Your task to perform on an android device: Show me some nice wallpapers for my computer Image 0: 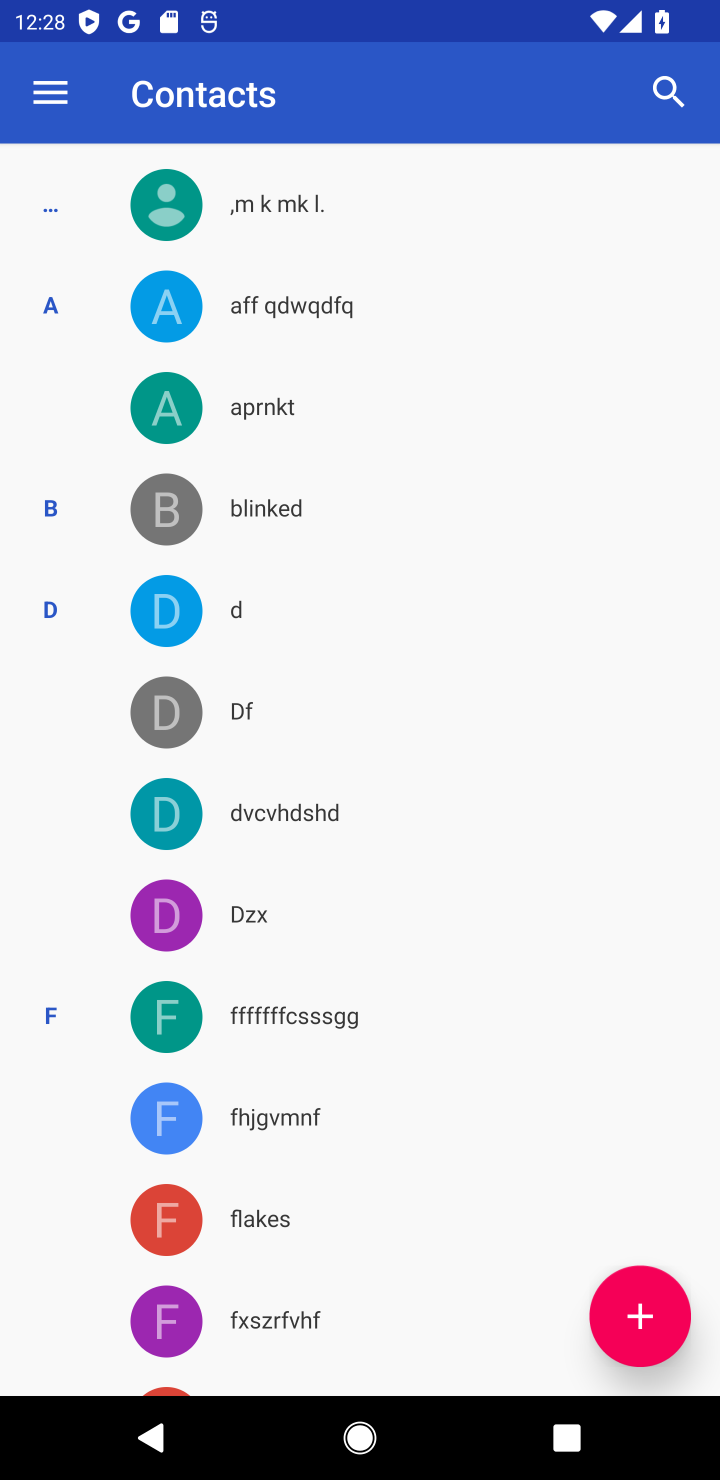
Step 0: press home button
Your task to perform on an android device: Show me some nice wallpapers for my computer Image 1: 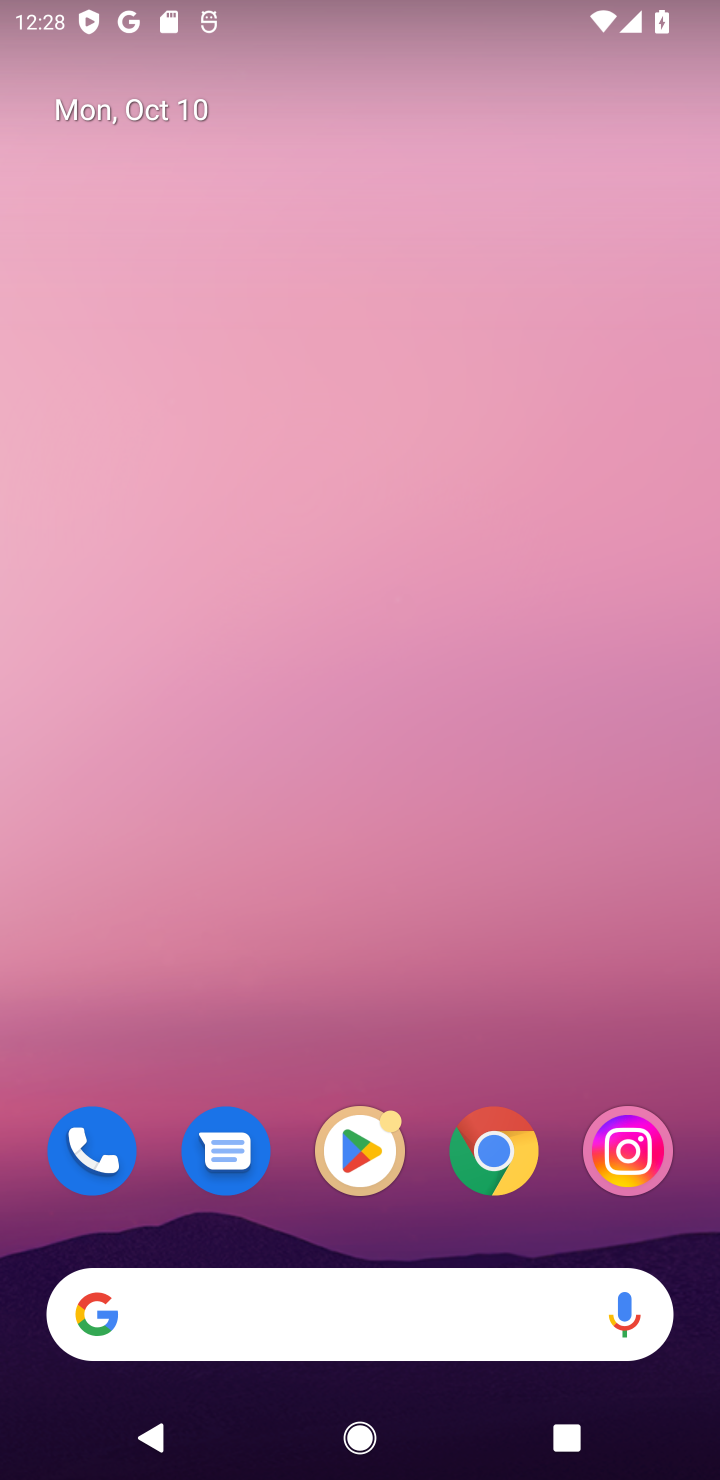
Step 1: drag from (705, 1446) to (611, 1403)
Your task to perform on an android device: Show me some nice wallpapers for my computer Image 2: 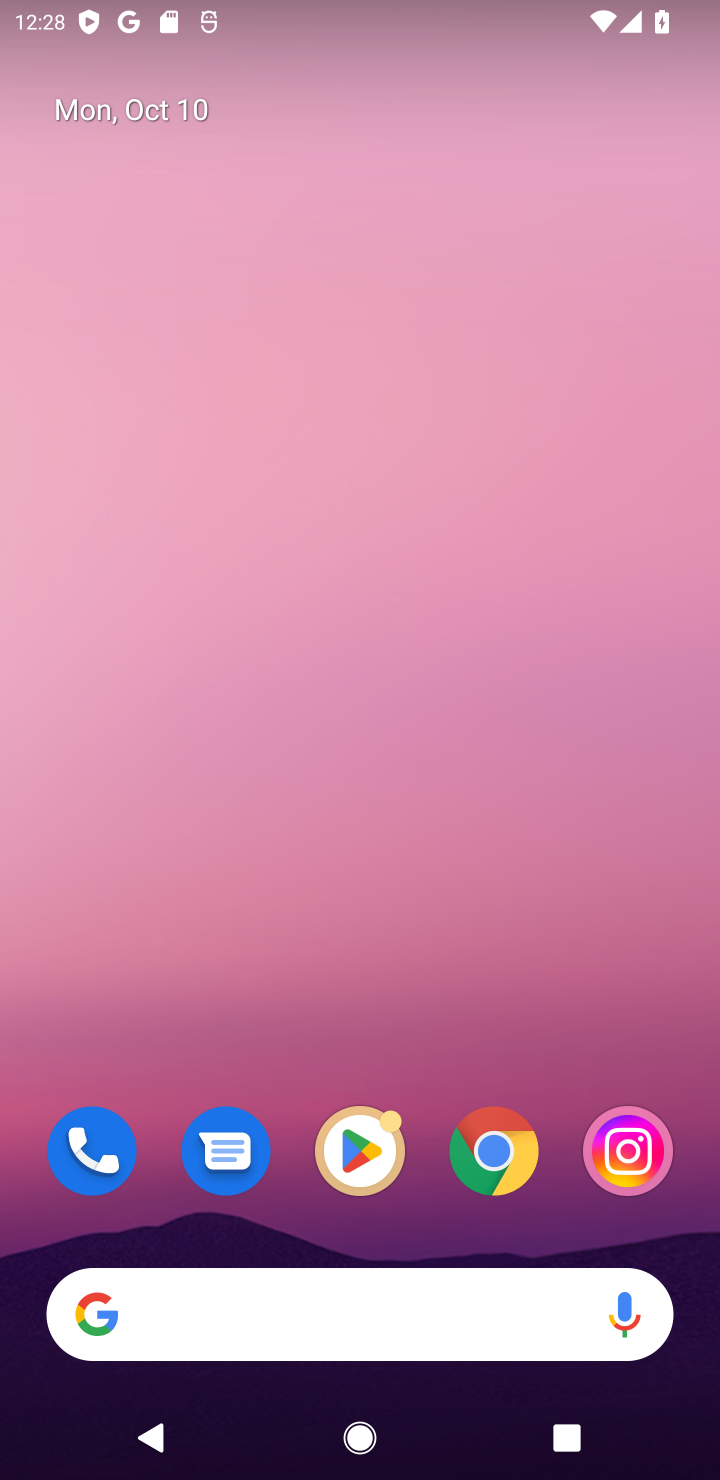
Step 2: click (333, 1323)
Your task to perform on an android device: Show me some nice wallpapers for my computer Image 3: 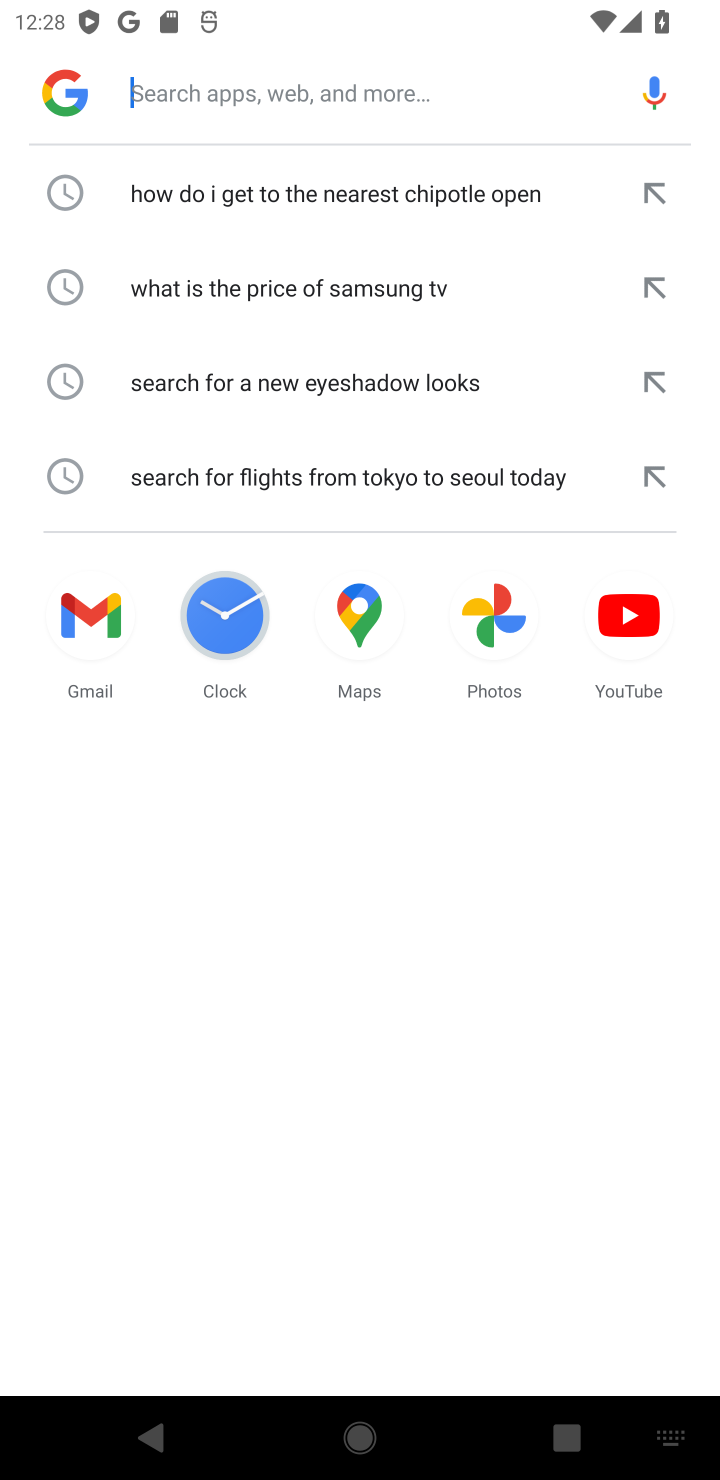
Step 3: type "Show me some nice wallpapers for my computer"
Your task to perform on an android device: Show me some nice wallpapers for my computer Image 4: 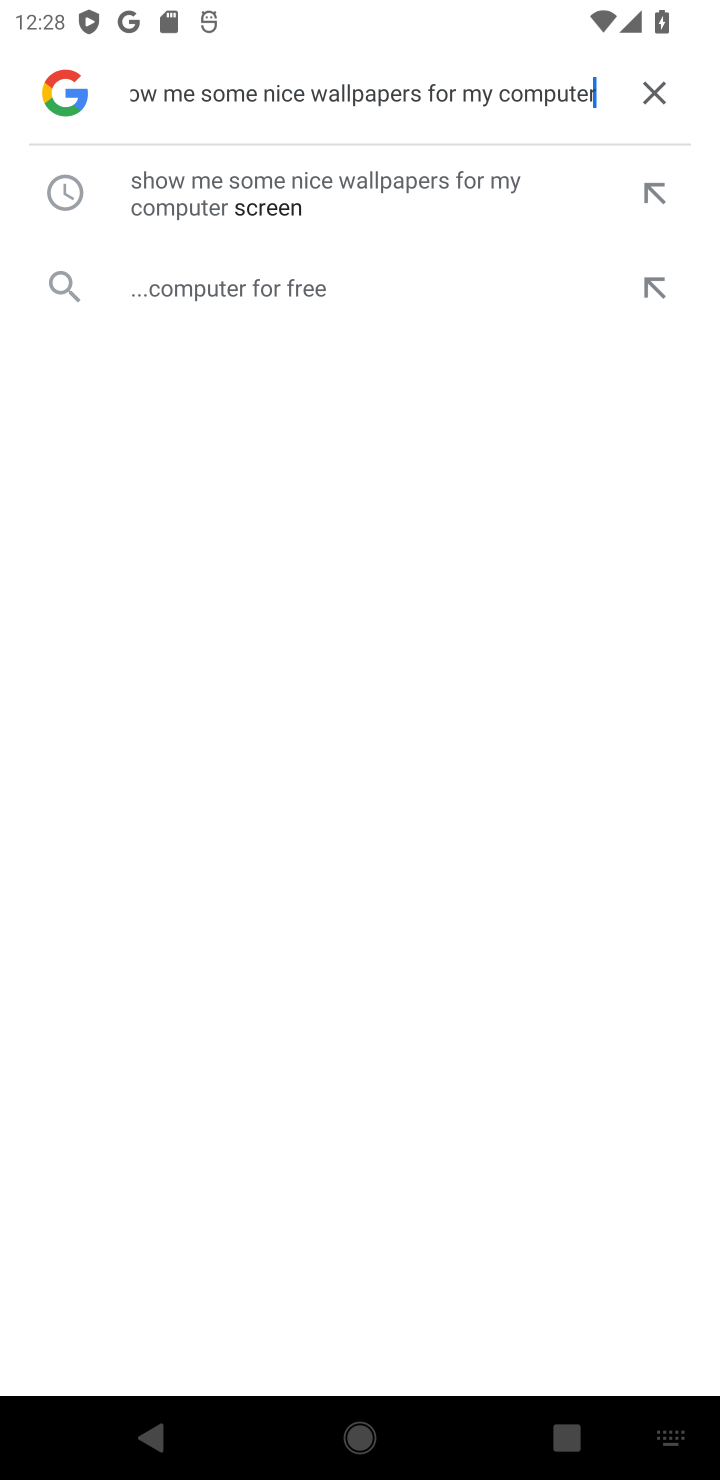
Step 4: click (281, 185)
Your task to perform on an android device: Show me some nice wallpapers for my computer Image 5: 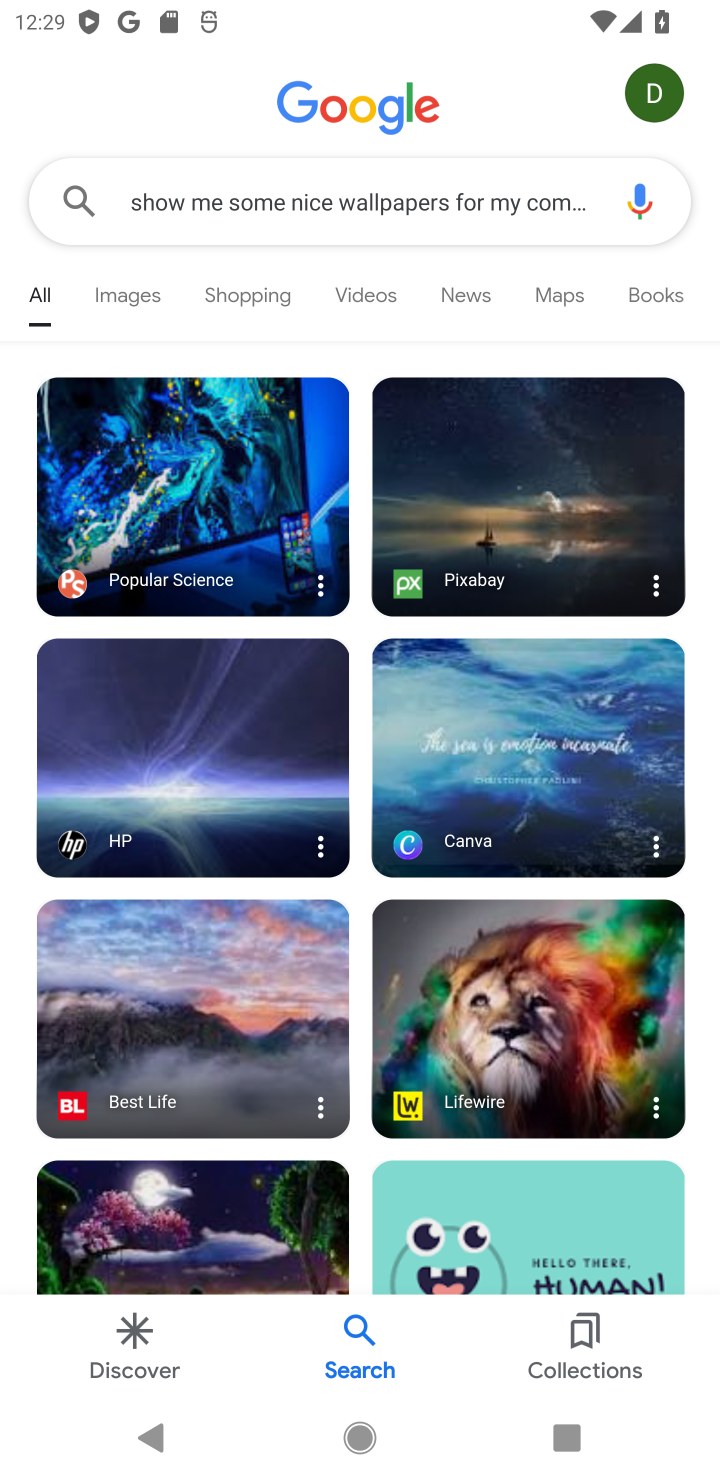
Step 5: task complete